Your task to perform on an android device: Open Chrome and go to settings Image 0: 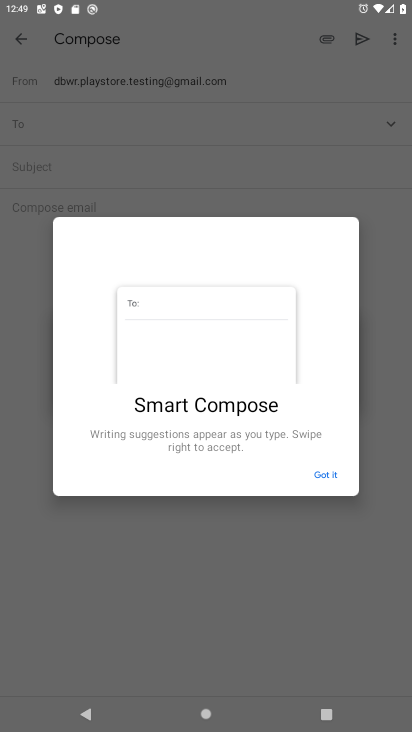
Step 0: press home button
Your task to perform on an android device: Open Chrome and go to settings Image 1: 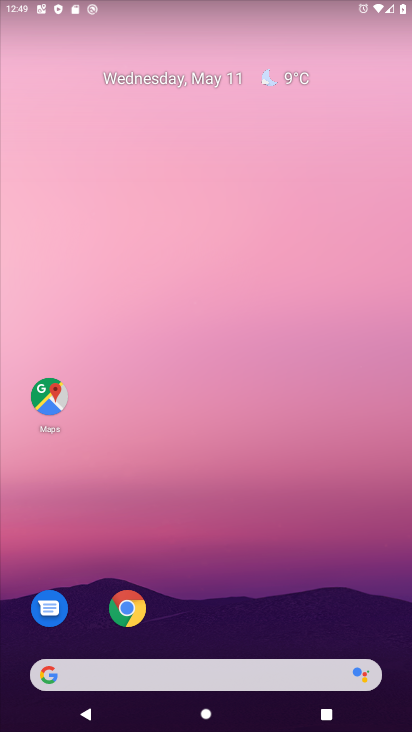
Step 1: drag from (317, 602) to (306, 187)
Your task to perform on an android device: Open Chrome and go to settings Image 2: 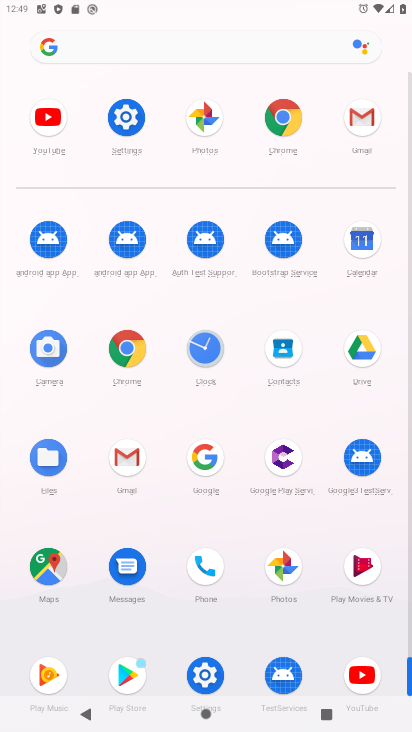
Step 2: click (135, 355)
Your task to perform on an android device: Open Chrome and go to settings Image 3: 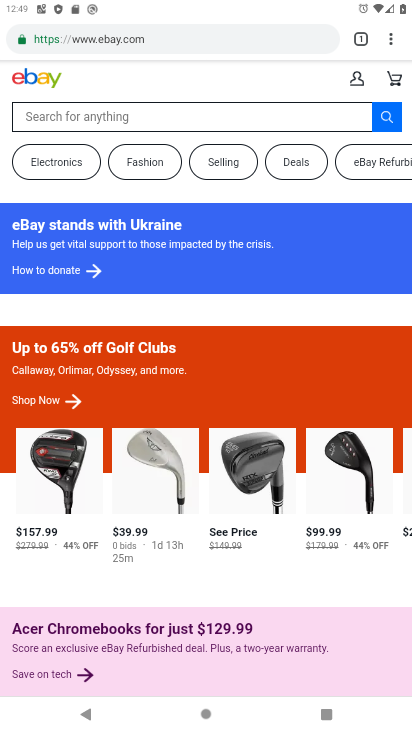
Step 3: click (391, 41)
Your task to perform on an android device: Open Chrome and go to settings Image 4: 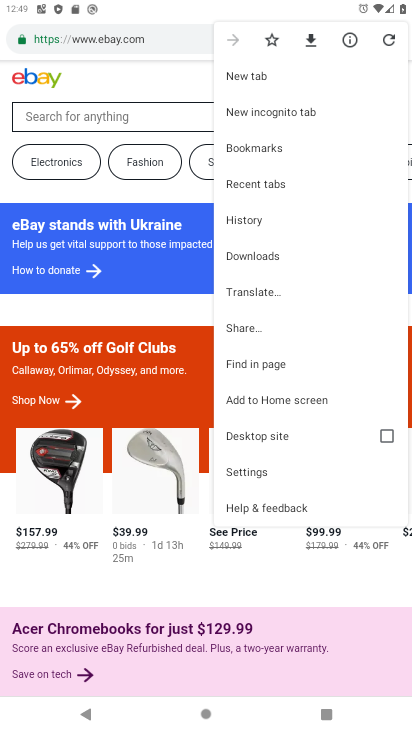
Step 4: click (289, 471)
Your task to perform on an android device: Open Chrome and go to settings Image 5: 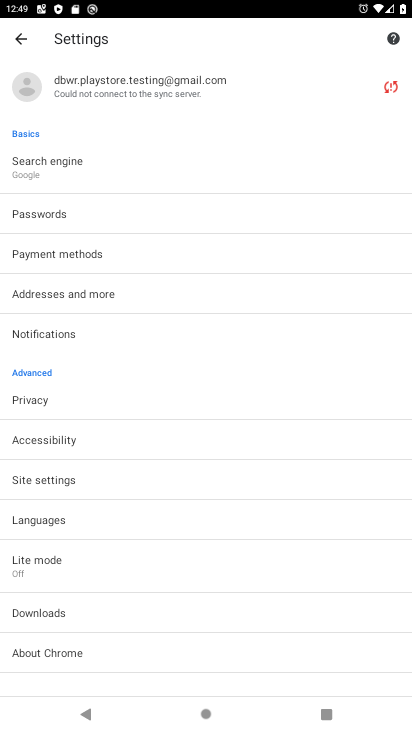
Step 5: task complete